Your task to perform on an android device: Search for vegetarian restaurants on Maps Image 0: 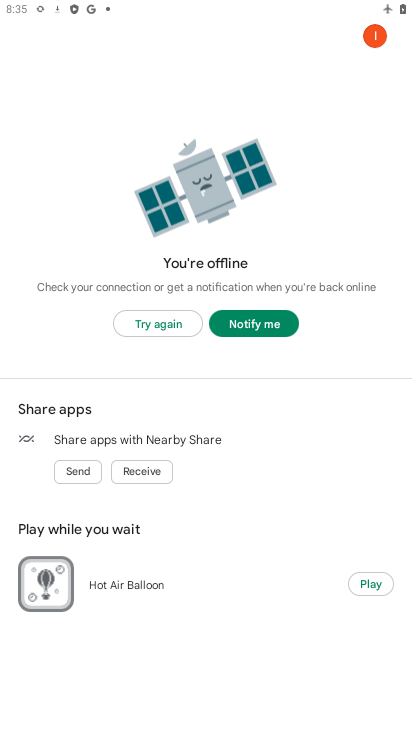
Step 0: press home button
Your task to perform on an android device: Search for vegetarian restaurants on Maps Image 1: 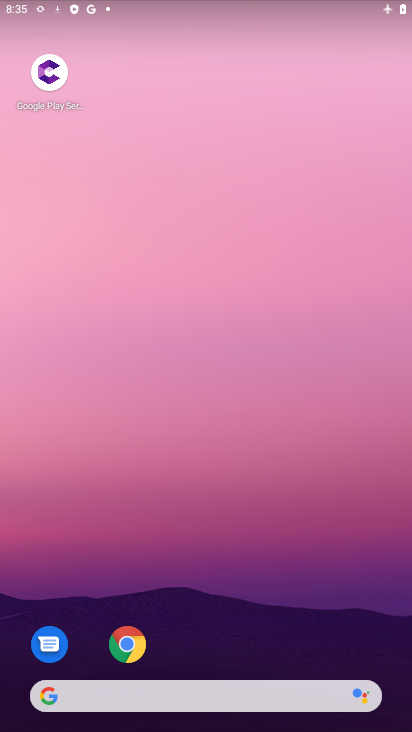
Step 1: drag from (37, 511) to (344, 606)
Your task to perform on an android device: Search for vegetarian restaurants on Maps Image 2: 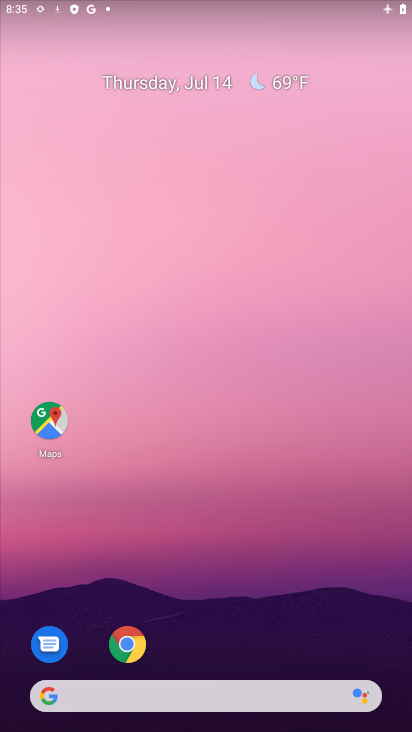
Step 2: click (40, 418)
Your task to perform on an android device: Search for vegetarian restaurants on Maps Image 3: 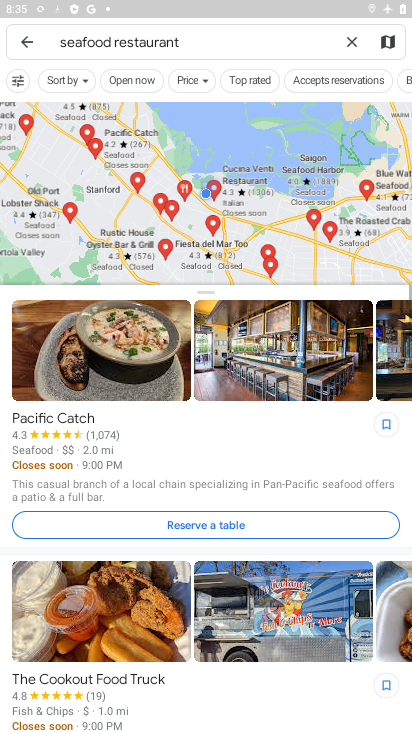
Step 3: click (352, 34)
Your task to perform on an android device: Search for vegetarian restaurants on Maps Image 4: 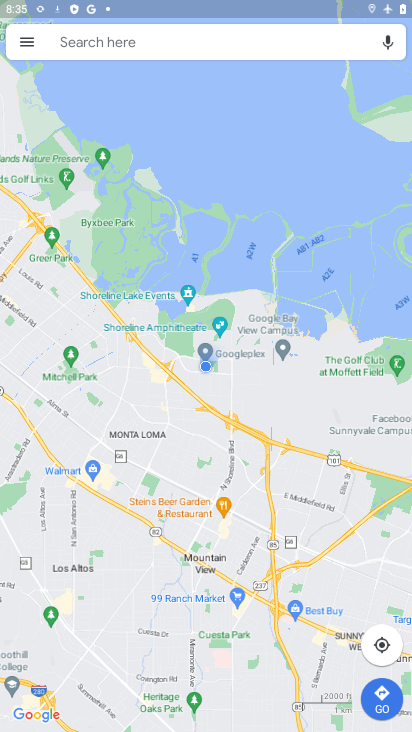
Step 4: click (248, 47)
Your task to perform on an android device: Search for vegetarian restaurants on Maps Image 5: 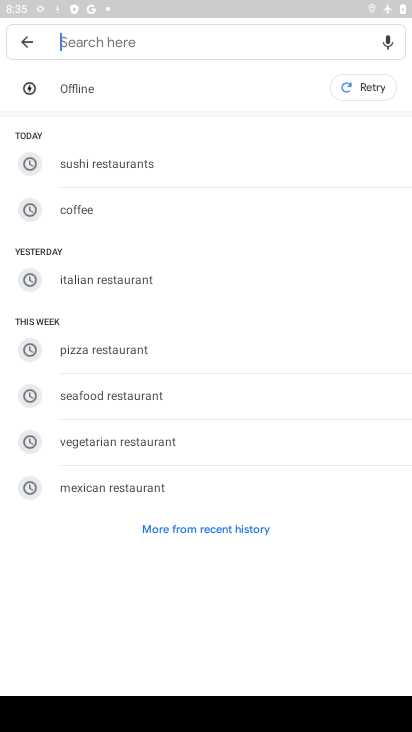
Step 5: click (213, 450)
Your task to perform on an android device: Search for vegetarian restaurants on Maps Image 6: 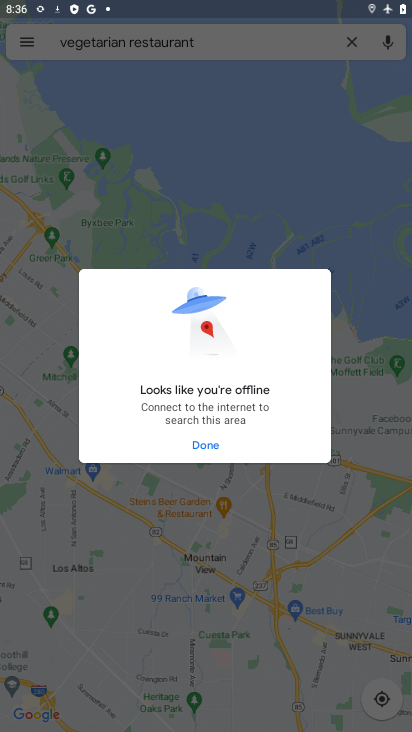
Step 6: drag from (232, 6) to (220, 607)
Your task to perform on an android device: Search for vegetarian restaurants on Maps Image 7: 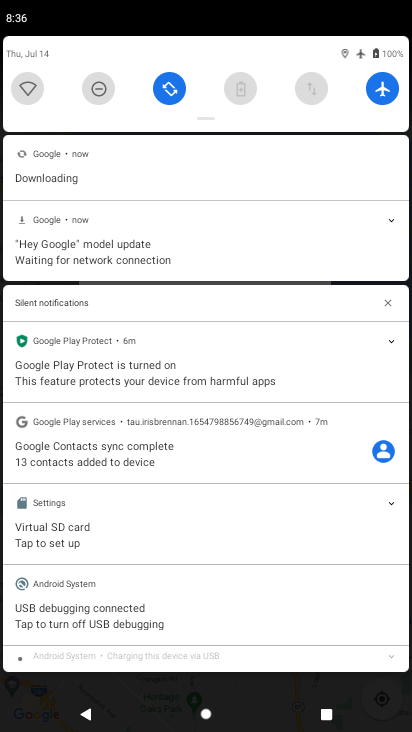
Step 7: click (379, 93)
Your task to perform on an android device: Search for vegetarian restaurants on Maps Image 8: 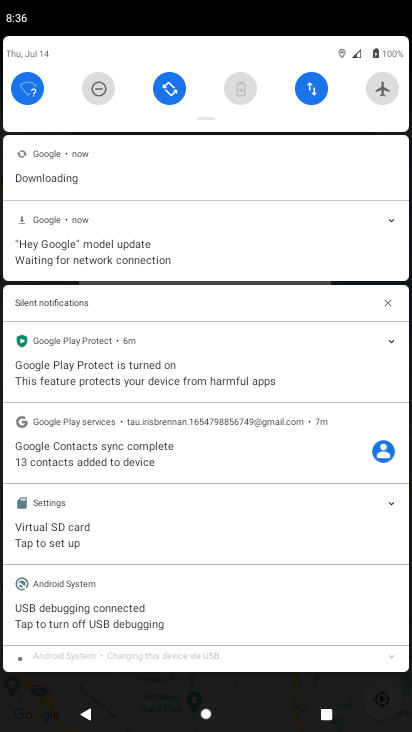
Step 8: task complete